Your task to perform on an android device: Open privacy settings Image 0: 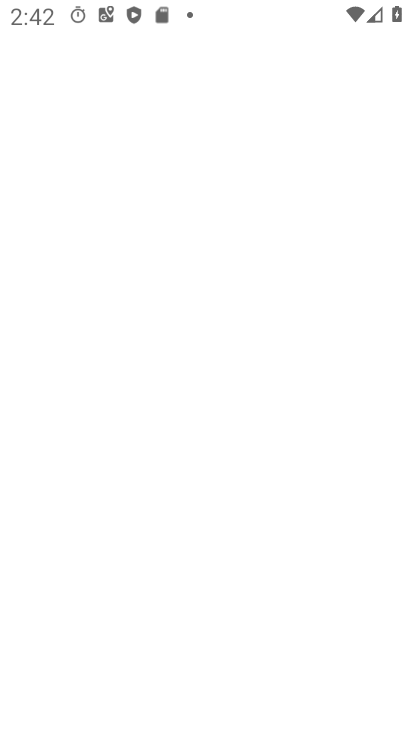
Step 0: press back button
Your task to perform on an android device: Open privacy settings Image 1: 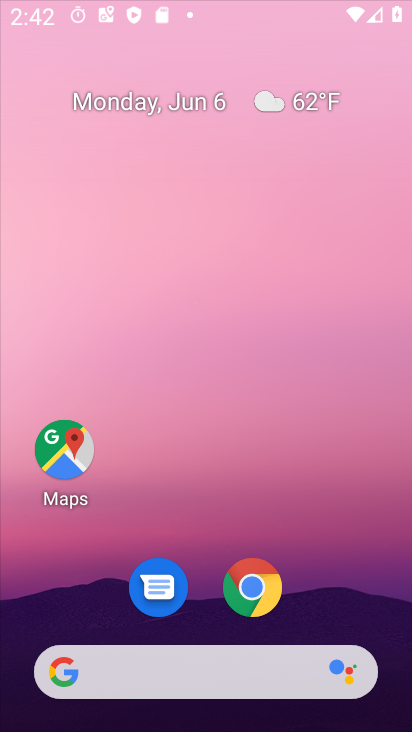
Step 1: press back button
Your task to perform on an android device: Open privacy settings Image 2: 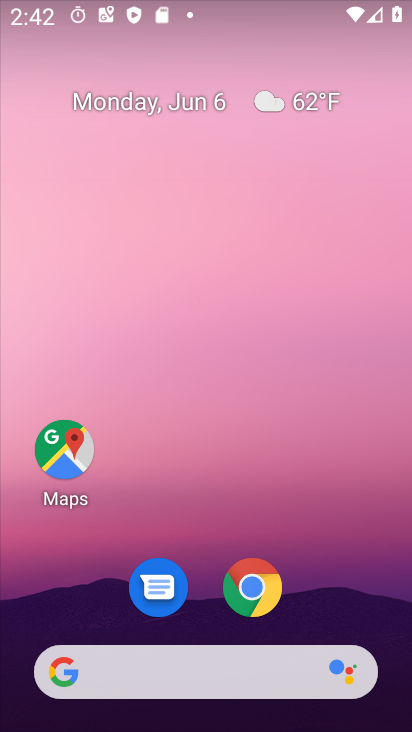
Step 2: drag from (345, 568) to (199, 17)
Your task to perform on an android device: Open privacy settings Image 3: 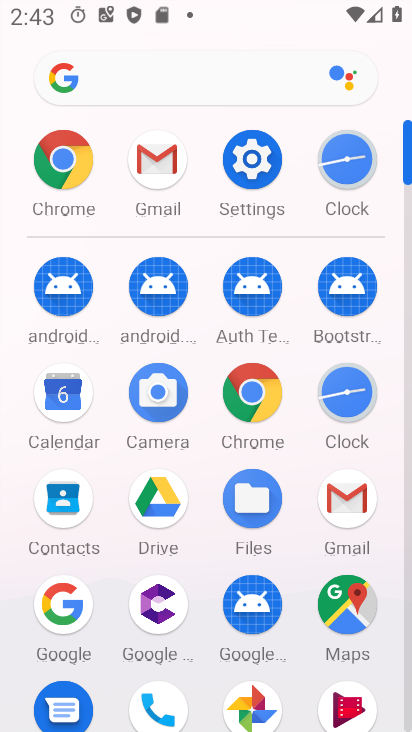
Step 3: drag from (1, 488) to (12, 146)
Your task to perform on an android device: Open privacy settings Image 4: 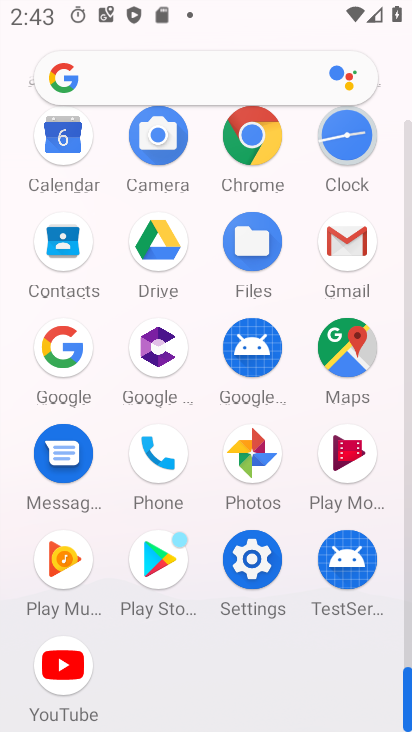
Step 4: drag from (15, 612) to (27, 325)
Your task to perform on an android device: Open privacy settings Image 5: 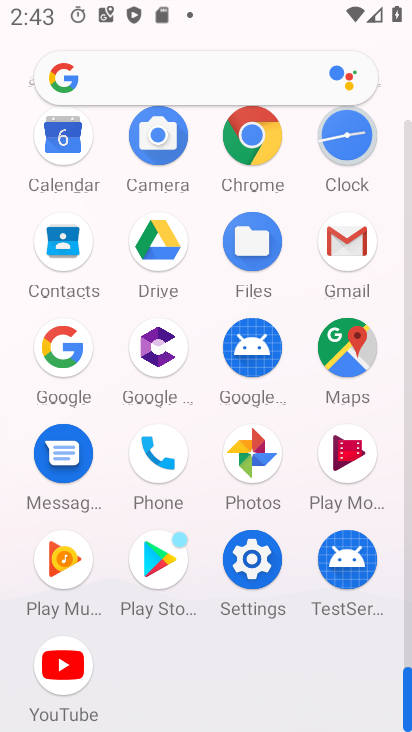
Step 5: click (250, 561)
Your task to perform on an android device: Open privacy settings Image 6: 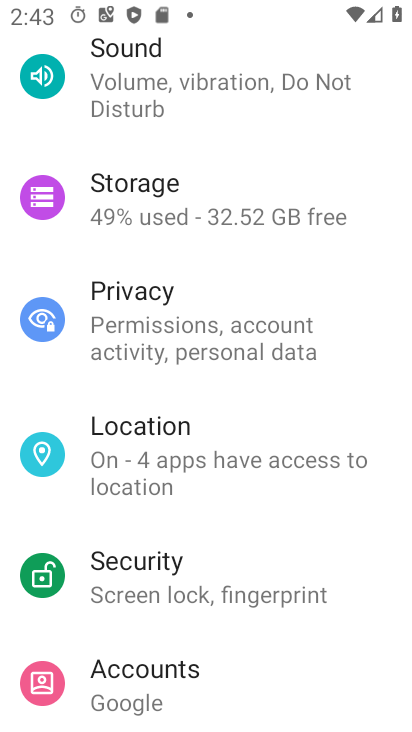
Step 6: click (192, 332)
Your task to perform on an android device: Open privacy settings Image 7: 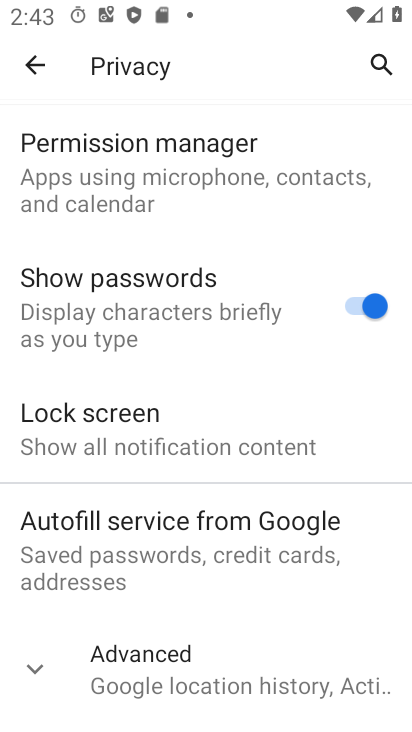
Step 7: click (51, 648)
Your task to perform on an android device: Open privacy settings Image 8: 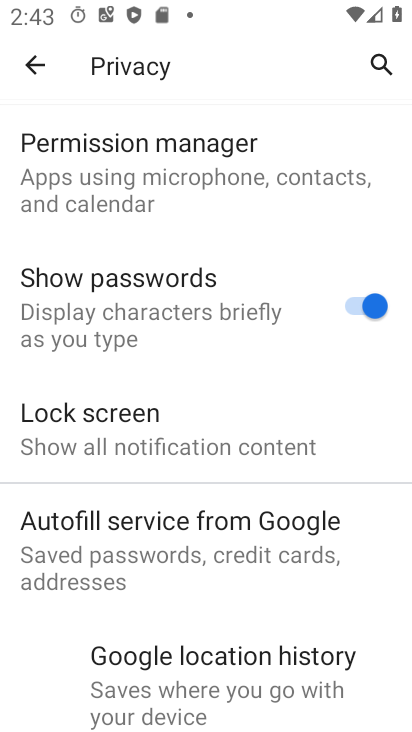
Step 8: task complete